Your task to perform on an android device: remove spam from my inbox in the gmail app Image 0: 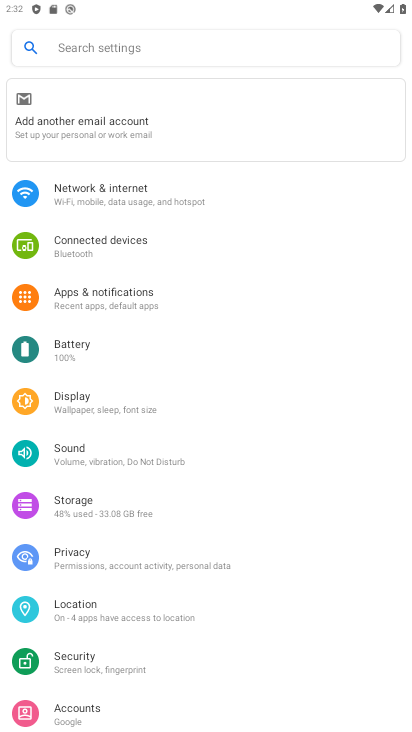
Step 0: press home button
Your task to perform on an android device: remove spam from my inbox in the gmail app Image 1: 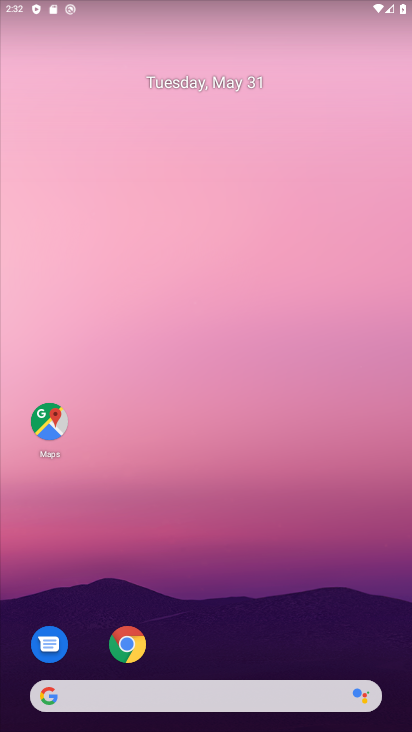
Step 1: drag from (138, 728) to (172, 50)
Your task to perform on an android device: remove spam from my inbox in the gmail app Image 2: 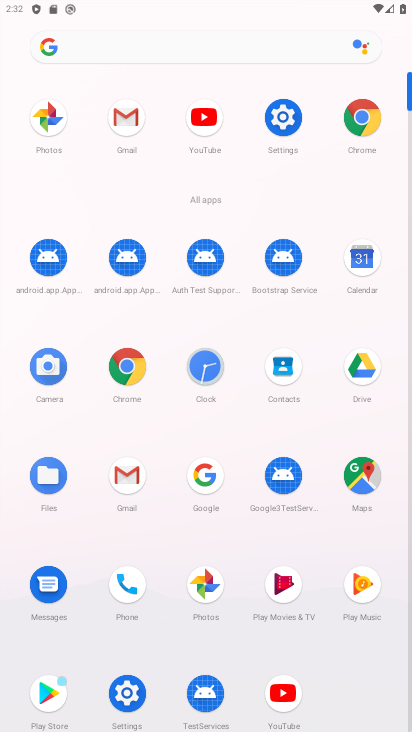
Step 2: click (133, 123)
Your task to perform on an android device: remove spam from my inbox in the gmail app Image 3: 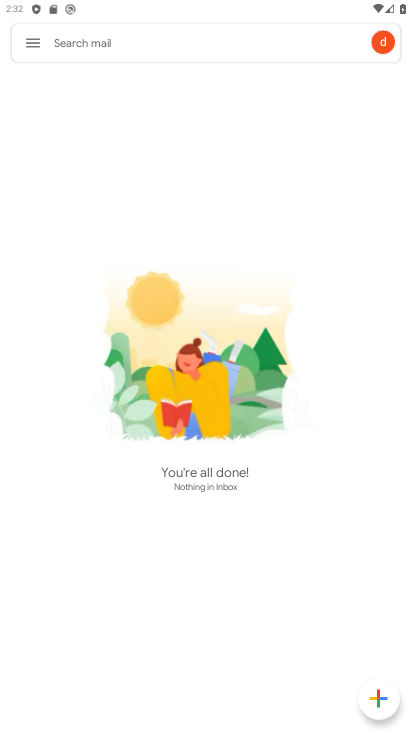
Step 3: click (33, 49)
Your task to perform on an android device: remove spam from my inbox in the gmail app Image 4: 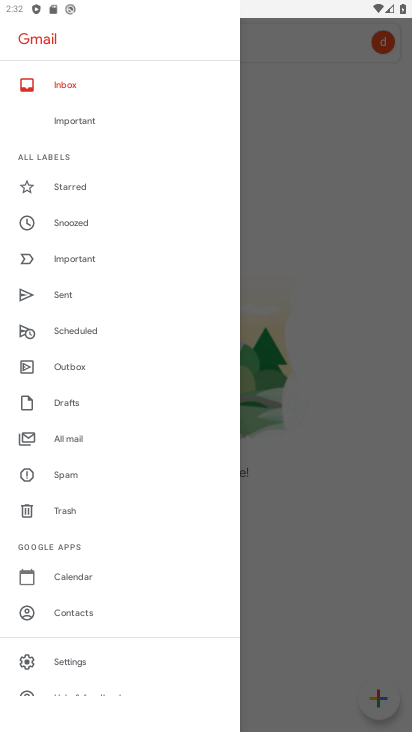
Step 4: click (106, 477)
Your task to perform on an android device: remove spam from my inbox in the gmail app Image 5: 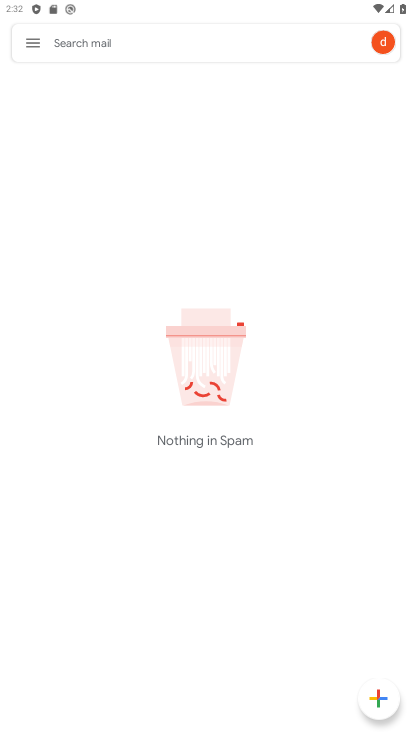
Step 5: task complete